Your task to perform on an android device: change the clock display to digital Image 0: 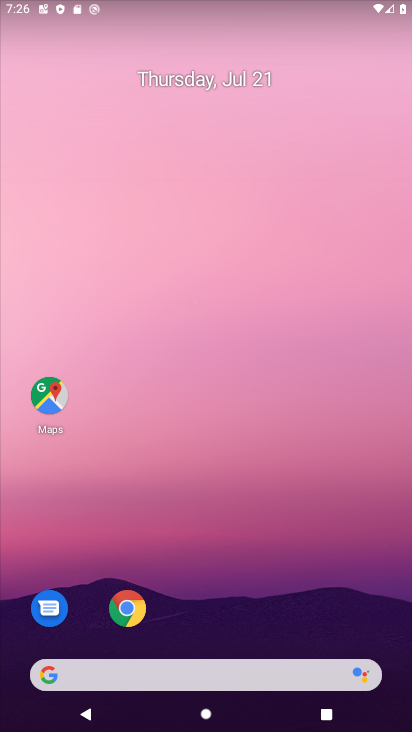
Step 0: drag from (177, 676) to (377, 62)
Your task to perform on an android device: change the clock display to digital Image 1: 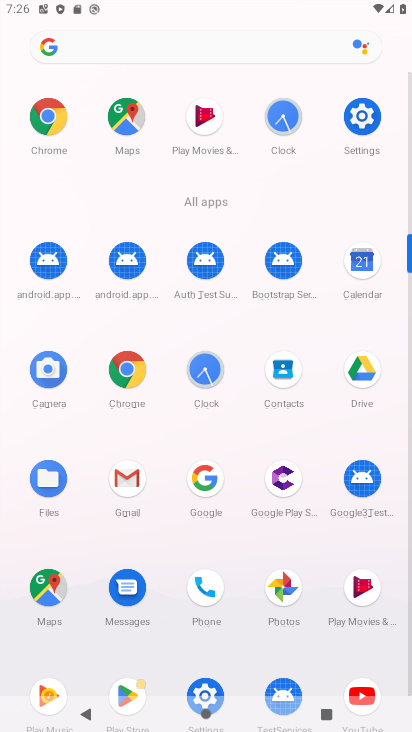
Step 1: click (283, 119)
Your task to perform on an android device: change the clock display to digital Image 2: 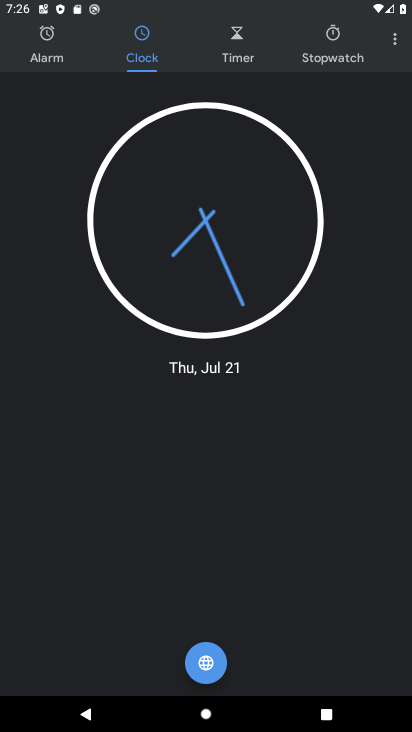
Step 2: click (396, 40)
Your task to perform on an android device: change the clock display to digital Image 3: 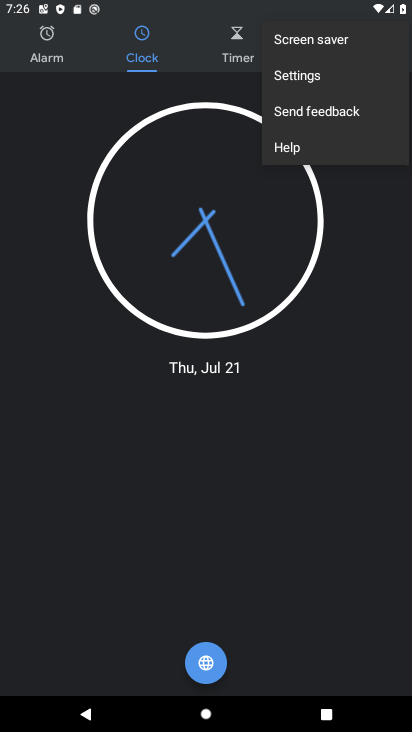
Step 3: click (307, 79)
Your task to perform on an android device: change the clock display to digital Image 4: 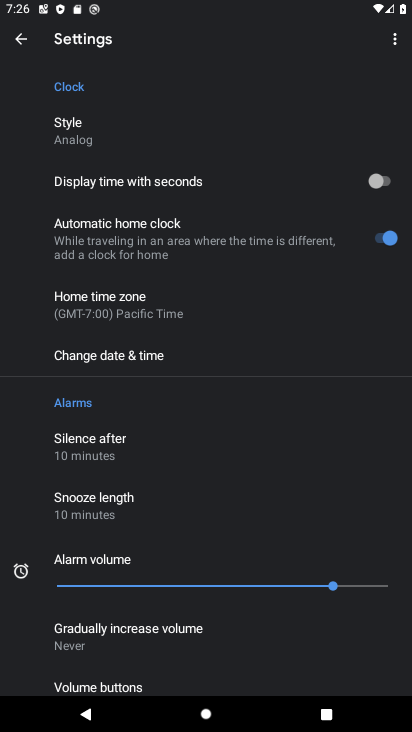
Step 4: click (73, 139)
Your task to perform on an android device: change the clock display to digital Image 5: 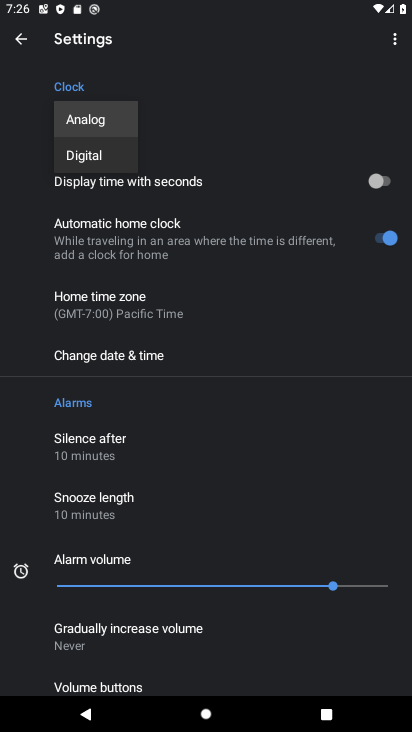
Step 5: click (89, 154)
Your task to perform on an android device: change the clock display to digital Image 6: 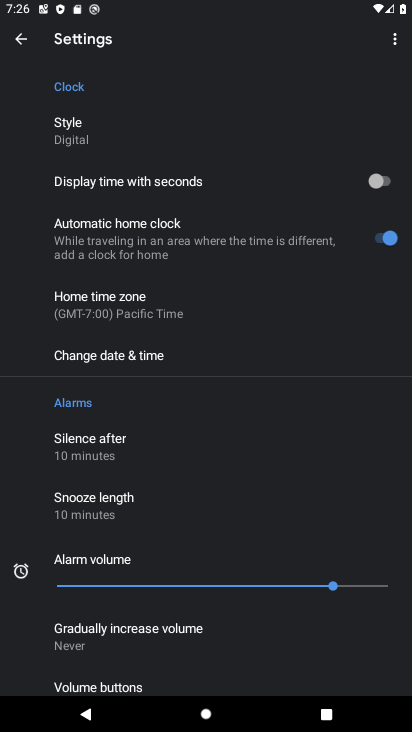
Step 6: task complete